Your task to perform on an android device: read, delete, or share a saved page in the chrome app Image 0: 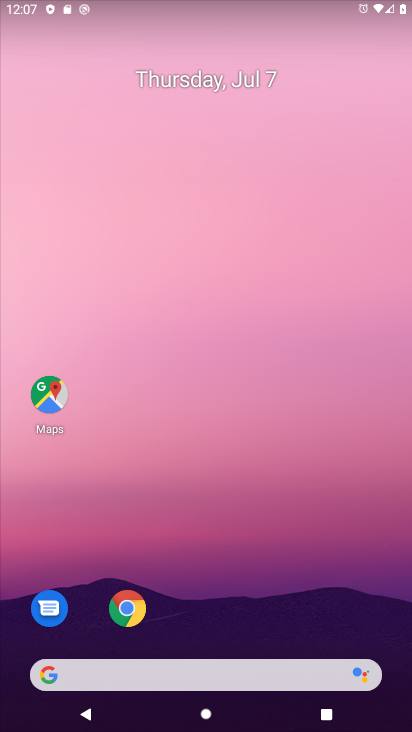
Step 0: click (122, 610)
Your task to perform on an android device: read, delete, or share a saved page in the chrome app Image 1: 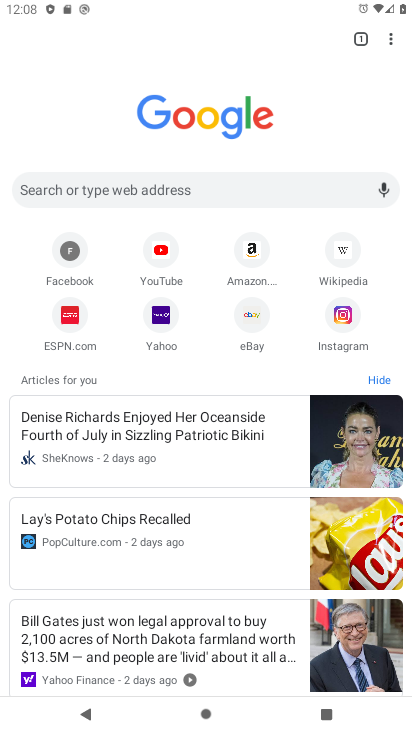
Step 1: drag from (388, 37) to (256, 248)
Your task to perform on an android device: read, delete, or share a saved page in the chrome app Image 2: 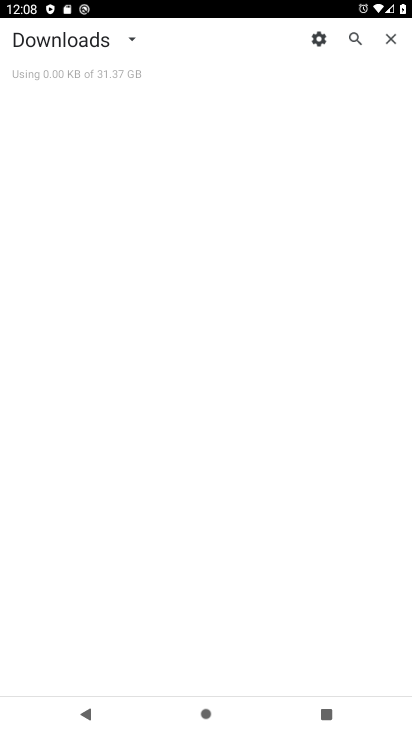
Step 2: click (129, 43)
Your task to perform on an android device: read, delete, or share a saved page in the chrome app Image 3: 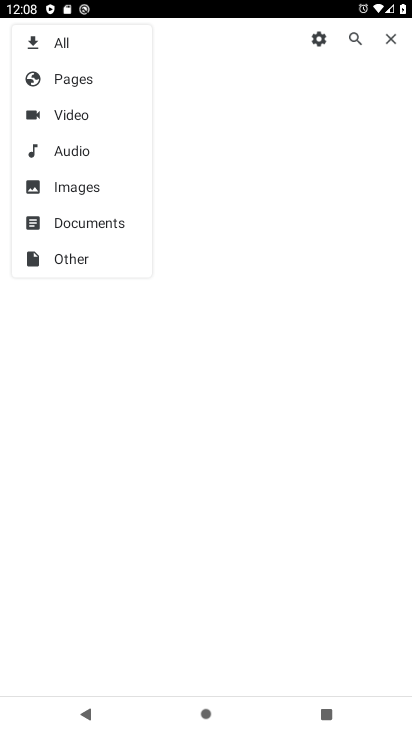
Step 3: click (102, 81)
Your task to perform on an android device: read, delete, or share a saved page in the chrome app Image 4: 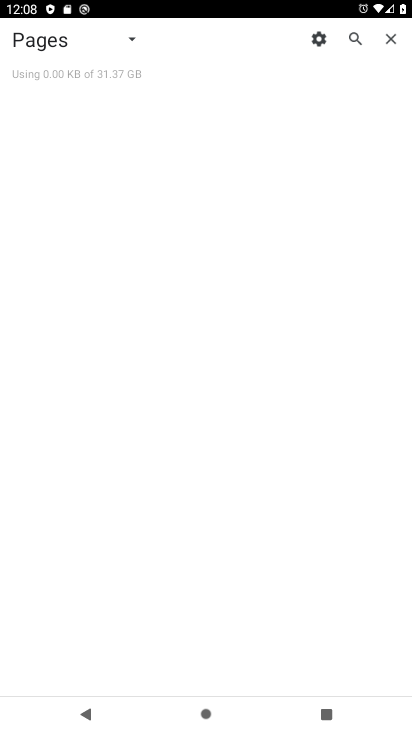
Step 4: task complete